Your task to perform on an android device: Do I have any events today? Image 0: 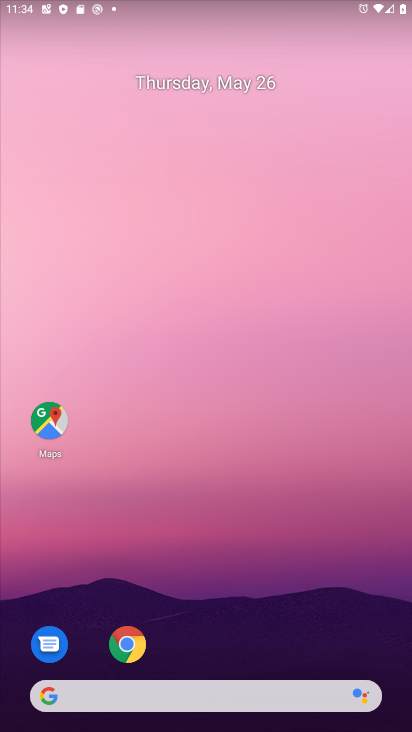
Step 0: drag from (187, 615) to (172, 176)
Your task to perform on an android device: Do I have any events today? Image 1: 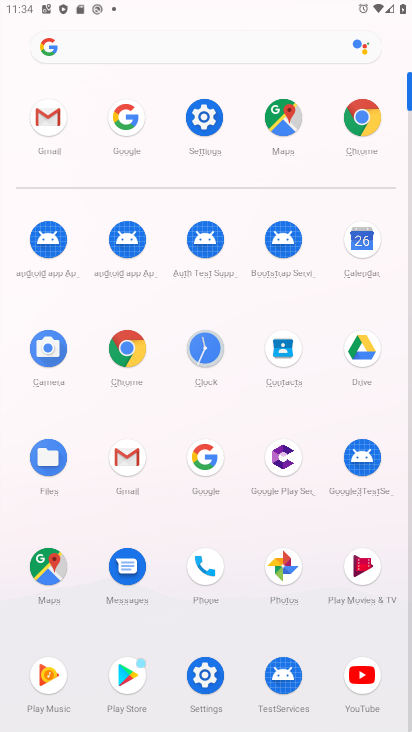
Step 1: click (348, 242)
Your task to perform on an android device: Do I have any events today? Image 2: 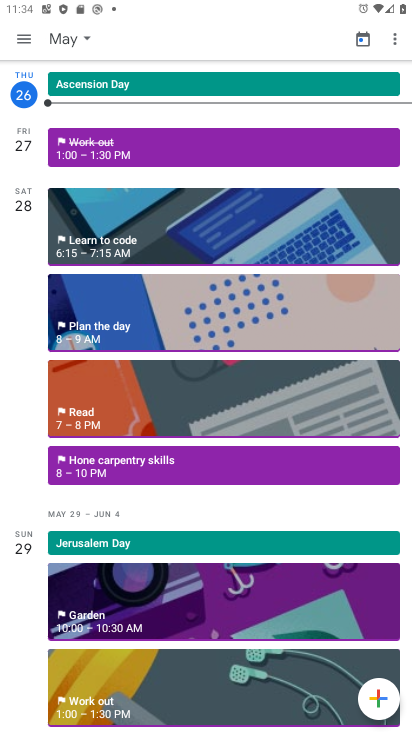
Step 2: click (85, 40)
Your task to perform on an android device: Do I have any events today? Image 3: 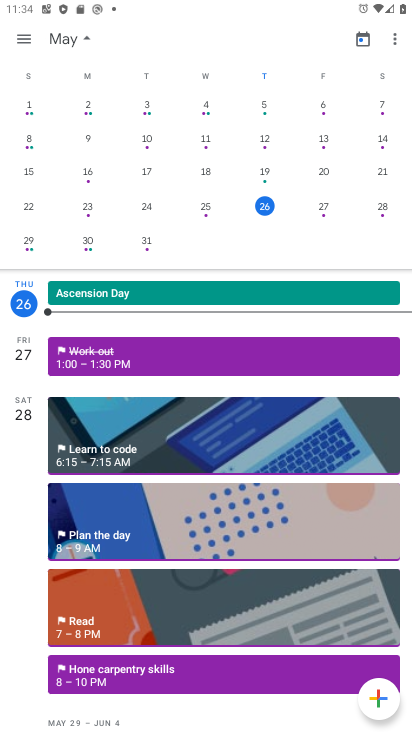
Step 3: click (261, 208)
Your task to perform on an android device: Do I have any events today? Image 4: 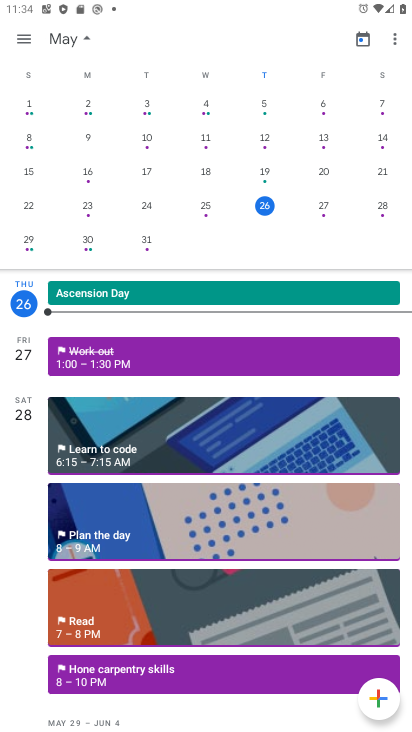
Step 4: task complete